Your task to perform on an android device: turn on airplane mode Image 0: 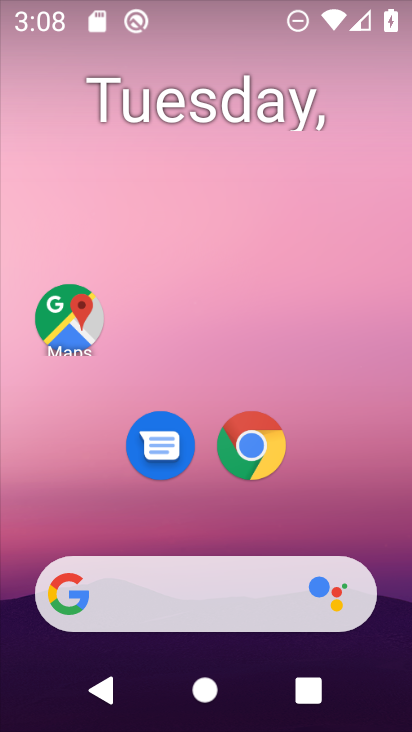
Step 0: drag from (339, 536) to (329, 12)
Your task to perform on an android device: turn on airplane mode Image 1: 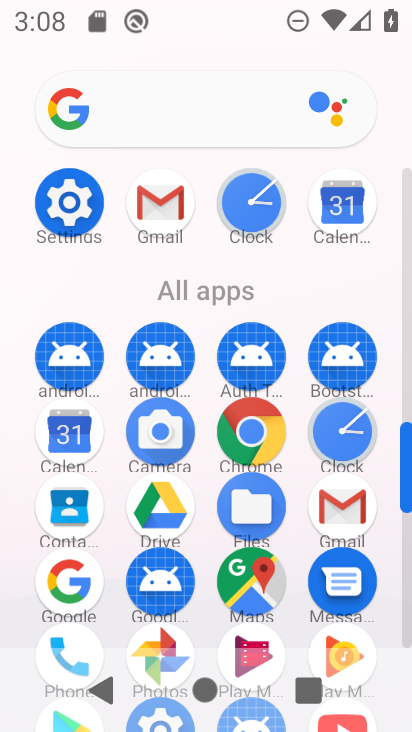
Step 1: click (62, 202)
Your task to perform on an android device: turn on airplane mode Image 2: 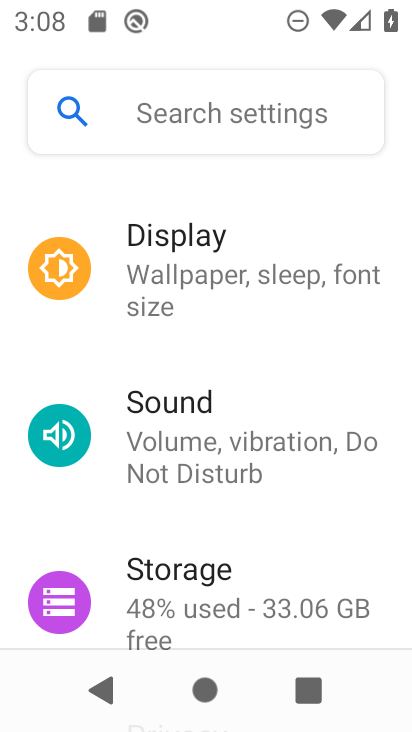
Step 2: drag from (265, 235) to (304, 569)
Your task to perform on an android device: turn on airplane mode Image 3: 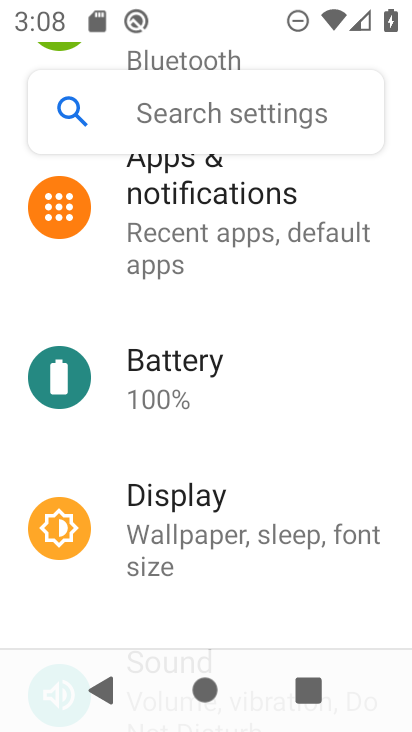
Step 3: drag from (340, 286) to (360, 599)
Your task to perform on an android device: turn on airplane mode Image 4: 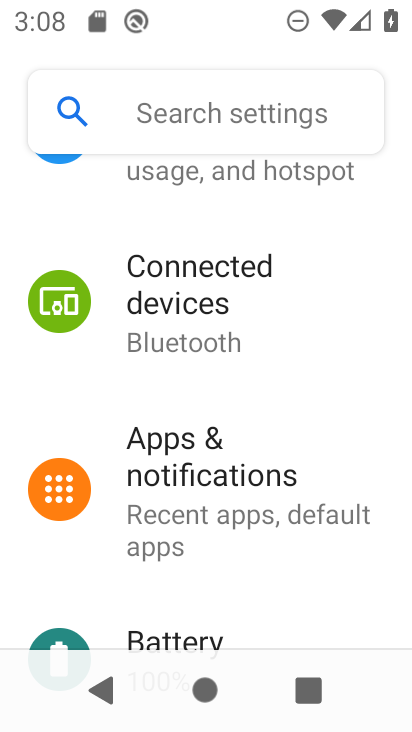
Step 4: drag from (360, 250) to (371, 683)
Your task to perform on an android device: turn on airplane mode Image 5: 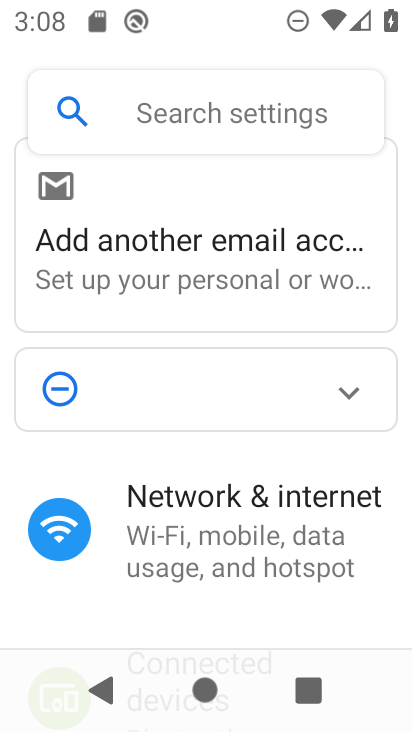
Step 5: click (240, 524)
Your task to perform on an android device: turn on airplane mode Image 6: 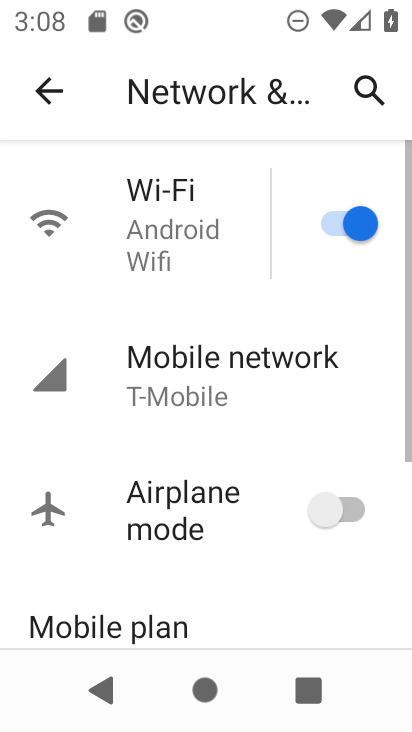
Step 6: click (317, 513)
Your task to perform on an android device: turn on airplane mode Image 7: 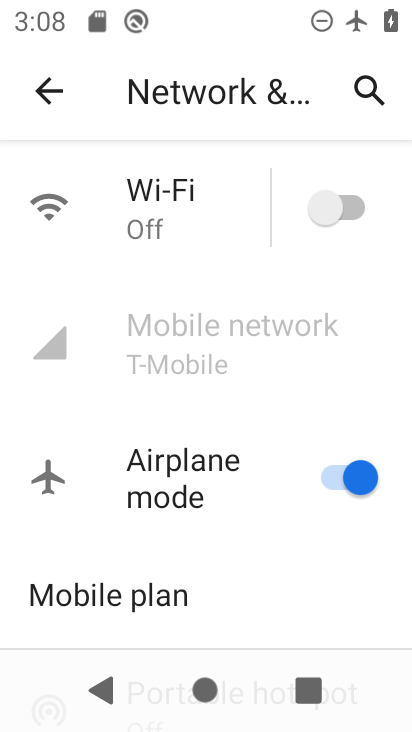
Step 7: task complete